Your task to perform on an android device: Do I have any events this weekend? Image 0: 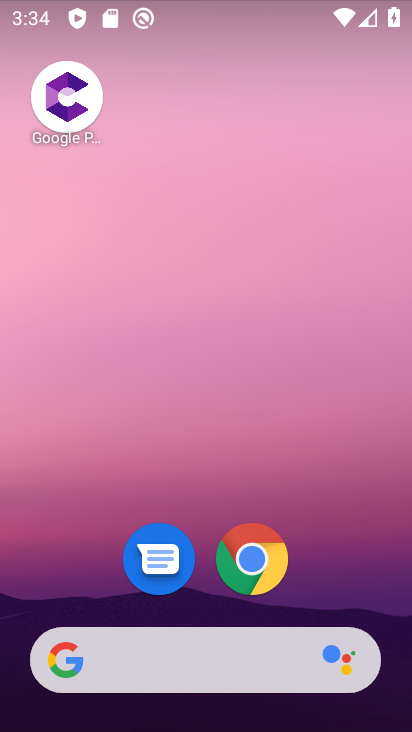
Step 0: drag from (197, 623) to (203, 142)
Your task to perform on an android device: Do I have any events this weekend? Image 1: 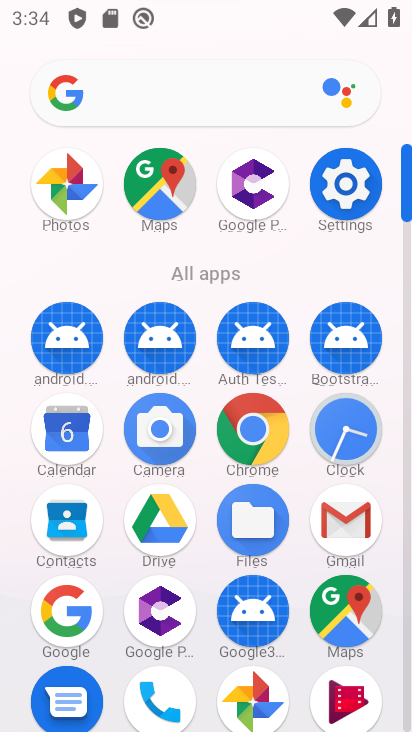
Step 1: click (53, 426)
Your task to perform on an android device: Do I have any events this weekend? Image 2: 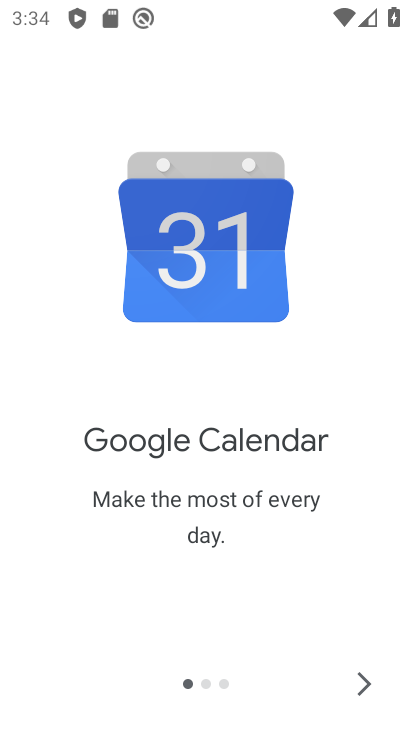
Step 2: click (356, 689)
Your task to perform on an android device: Do I have any events this weekend? Image 3: 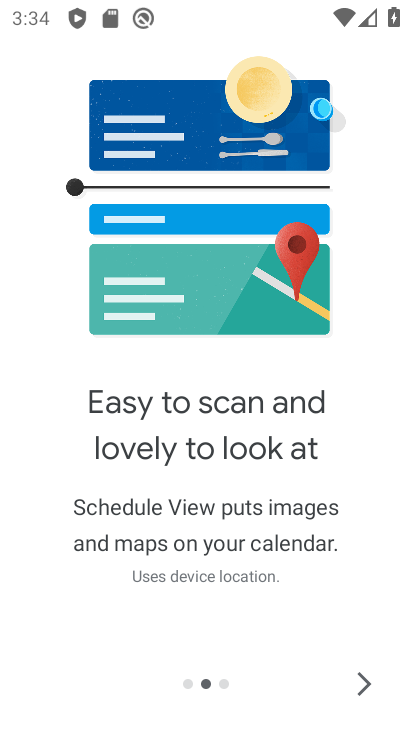
Step 3: click (356, 689)
Your task to perform on an android device: Do I have any events this weekend? Image 4: 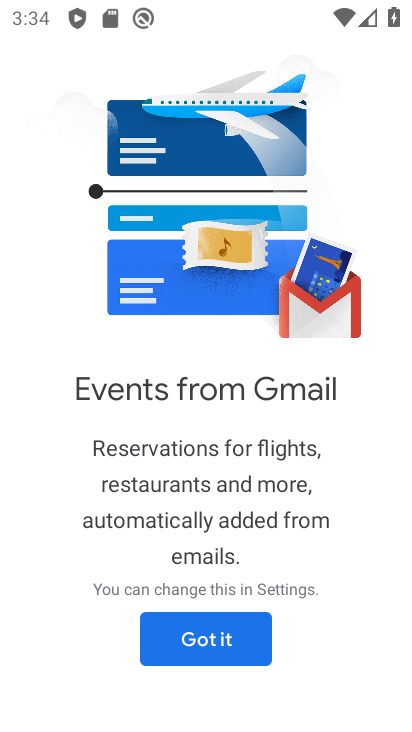
Step 4: click (193, 629)
Your task to perform on an android device: Do I have any events this weekend? Image 5: 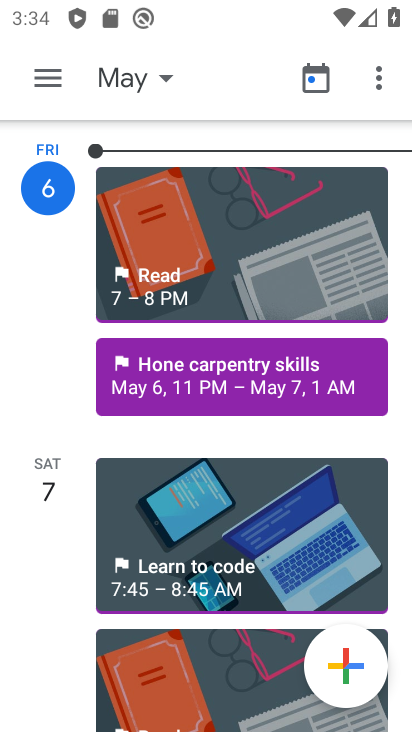
Step 5: task complete